Your task to perform on an android device: Open Yahoo.com Image 0: 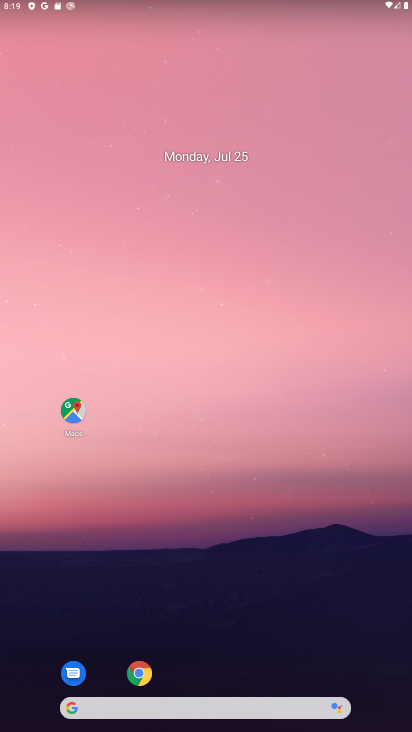
Step 0: click (142, 675)
Your task to perform on an android device: Open Yahoo.com Image 1: 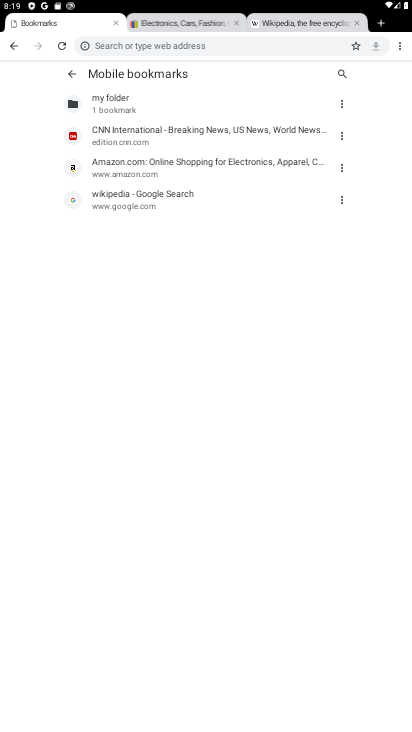
Step 1: click (251, 45)
Your task to perform on an android device: Open Yahoo.com Image 2: 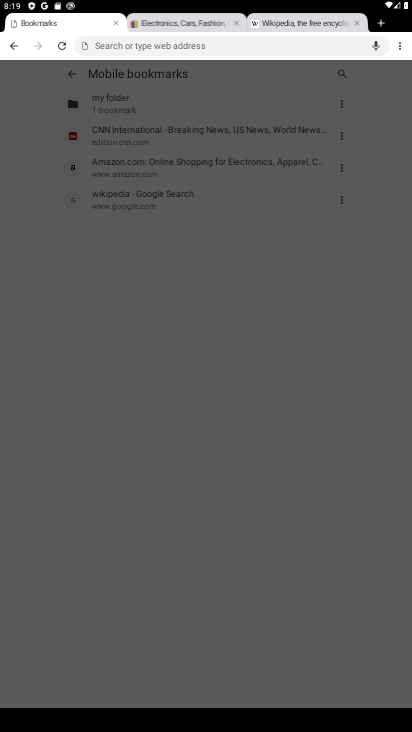
Step 2: type "yahoo.com"
Your task to perform on an android device: Open Yahoo.com Image 3: 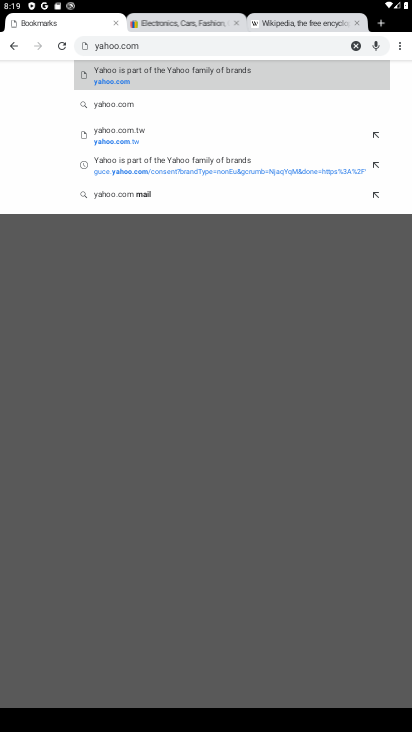
Step 3: click (170, 78)
Your task to perform on an android device: Open Yahoo.com Image 4: 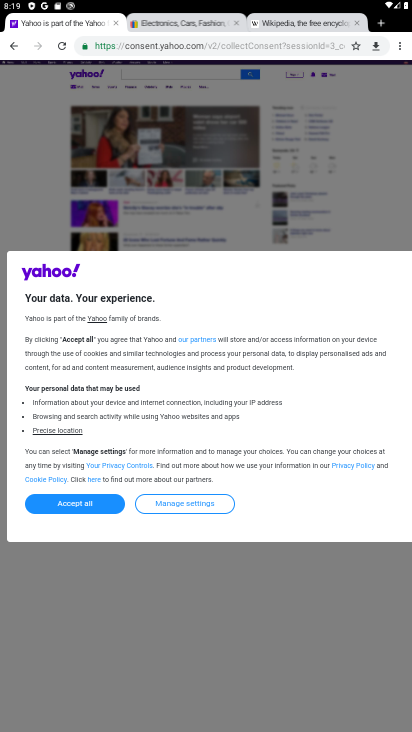
Step 4: task complete